Your task to perform on an android device: see creations saved in the google photos Image 0: 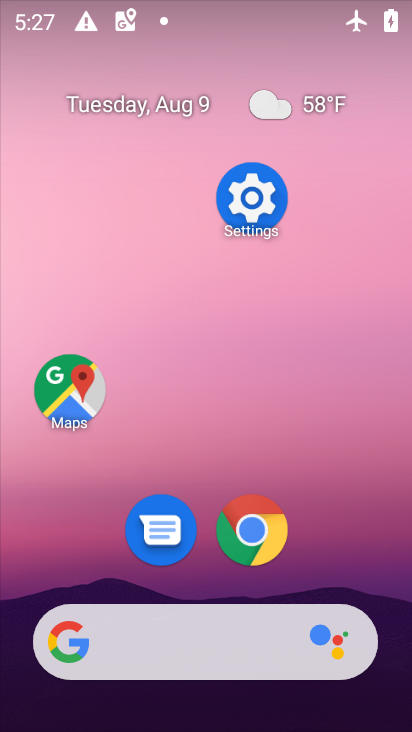
Step 0: drag from (135, 571) to (263, 37)
Your task to perform on an android device: see creations saved in the google photos Image 1: 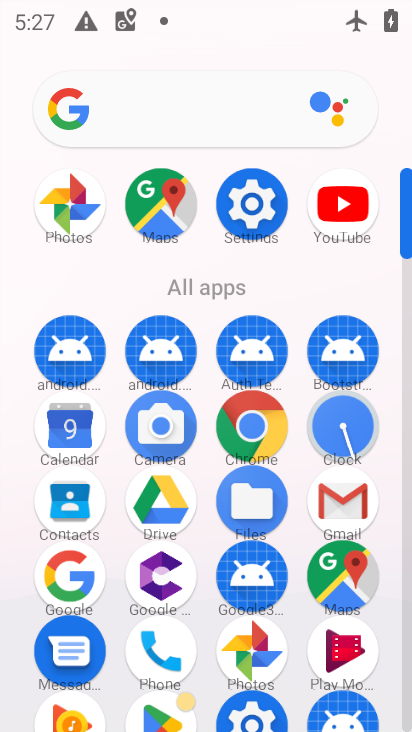
Step 1: click (57, 202)
Your task to perform on an android device: see creations saved in the google photos Image 2: 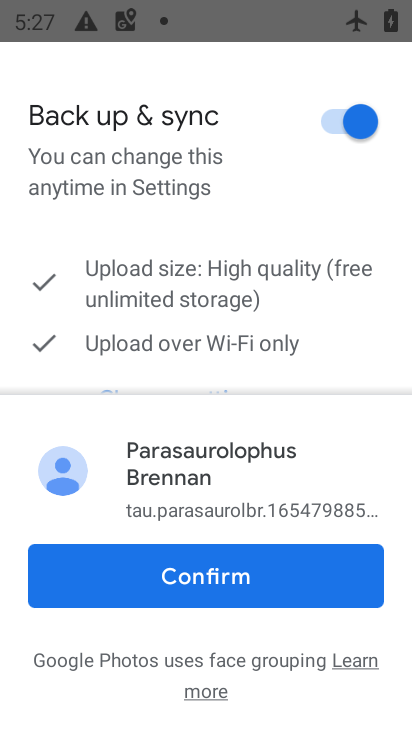
Step 2: click (173, 558)
Your task to perform on an android device: see creations saved in the google photos Image 3: 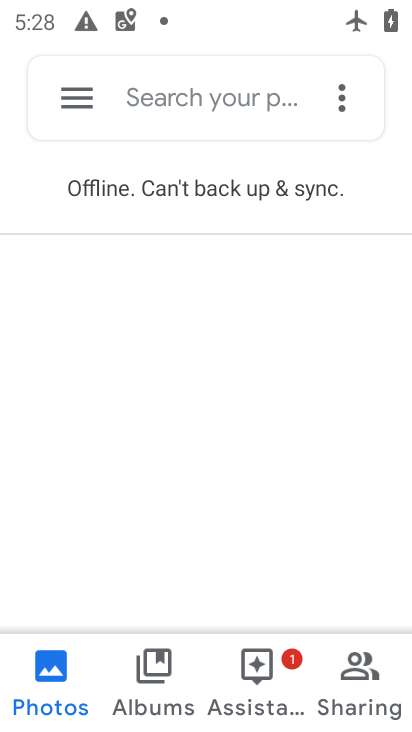
Step 3: task complete